Your task to perform on an android device: Open the Play Movies app and select the watchlist tab. Image 0: 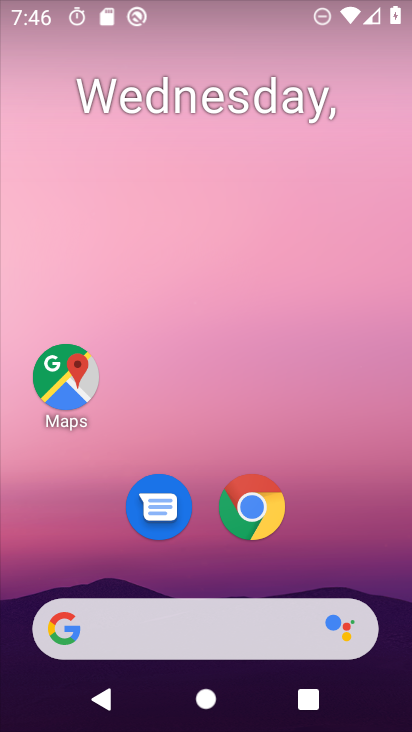
Step 0: drag from (241, 662) to (368, 112)
Your task to perform on an android device: Open the Play Movies app and select the watchlist tab. Image 1: 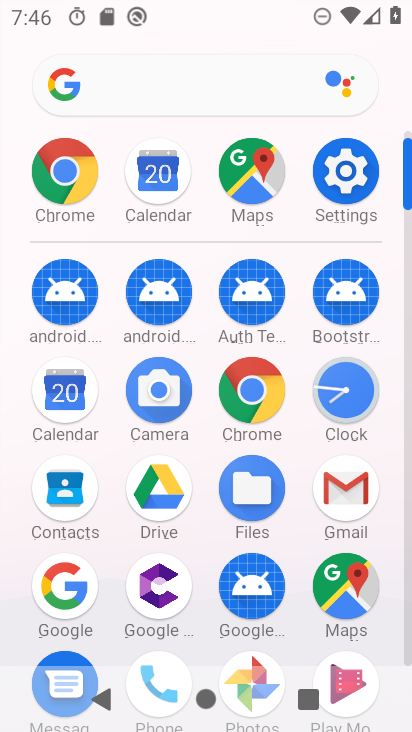
Step 1: drag from (294, 534) to (318, 358)
Your task to perform on an android device: Open the Play Movies app and select the watchlist tab. Image 2: 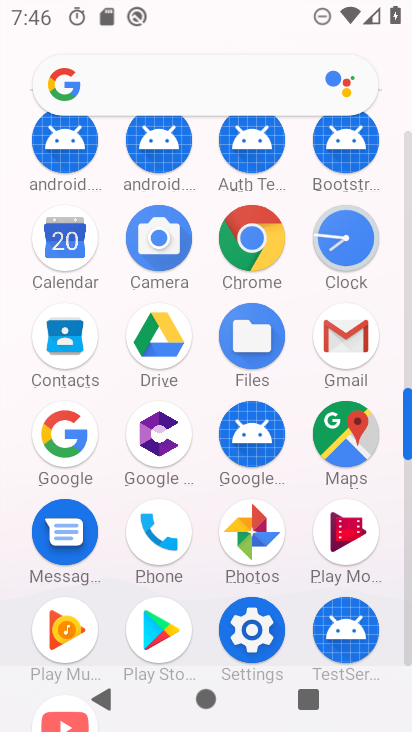
Step 2: click (332, 521)
Your task to perform on an android device: Open the Play Movies app and select the watchlist tab. Image 3: 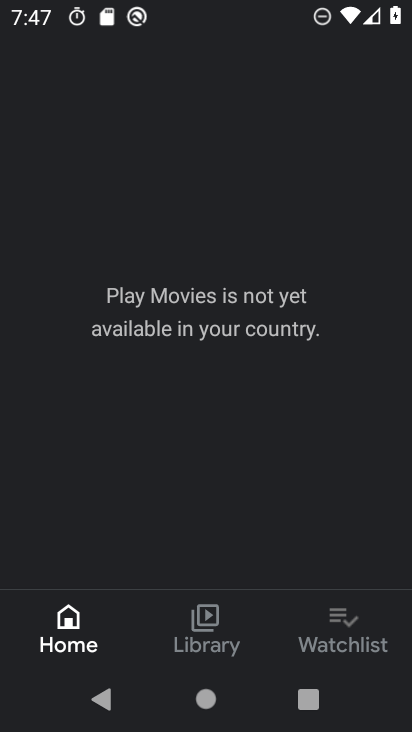
Step 3: click (339, 618)
Your task to perform on an android device: Open the Play Movies app and select the watchlist tab. Image 4: 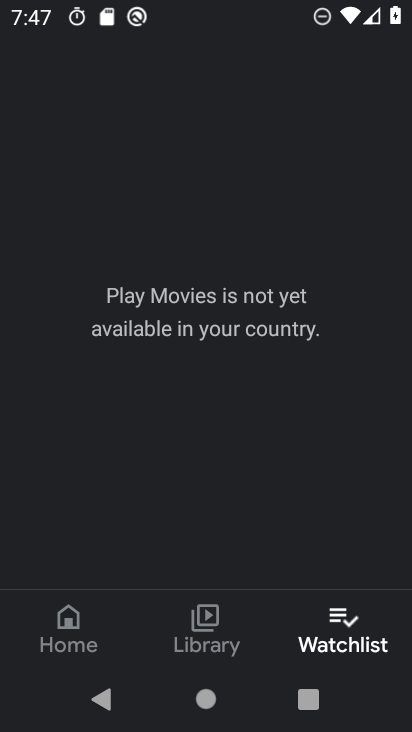
Step 4: task complete